Your task to perform on an android device: View the shopping cart on target. Search for "macbook air" on target, select the first entry, add it to the cart, then select checkout. Image 0: 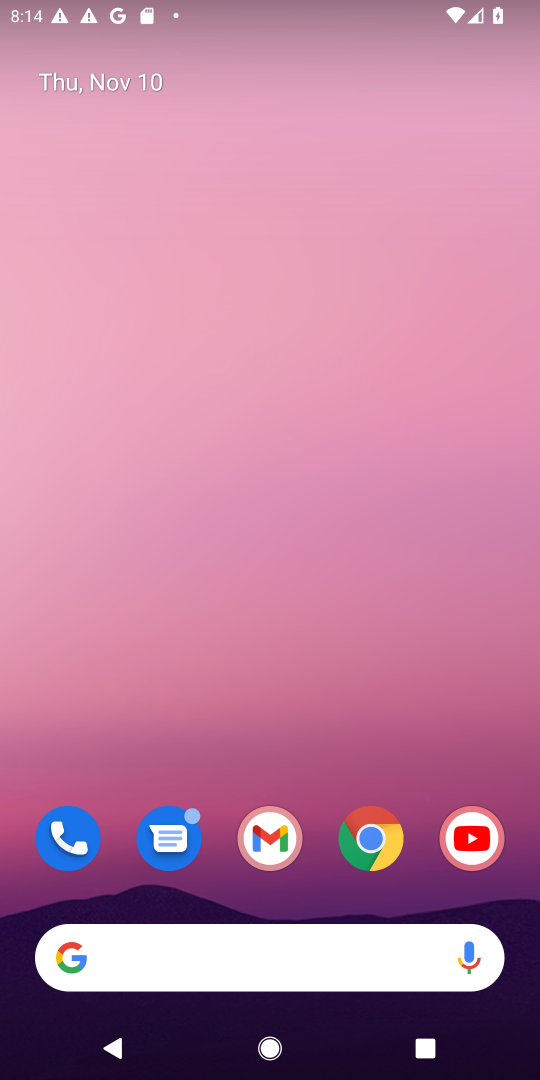
Step 0: drag from (336, 648) to (370, 111)
Your task to perform on an android device: View the shopping cart on target. Search for "macbook air" on target, select the first entry, add it to the cart, then select checkout. Image 1: 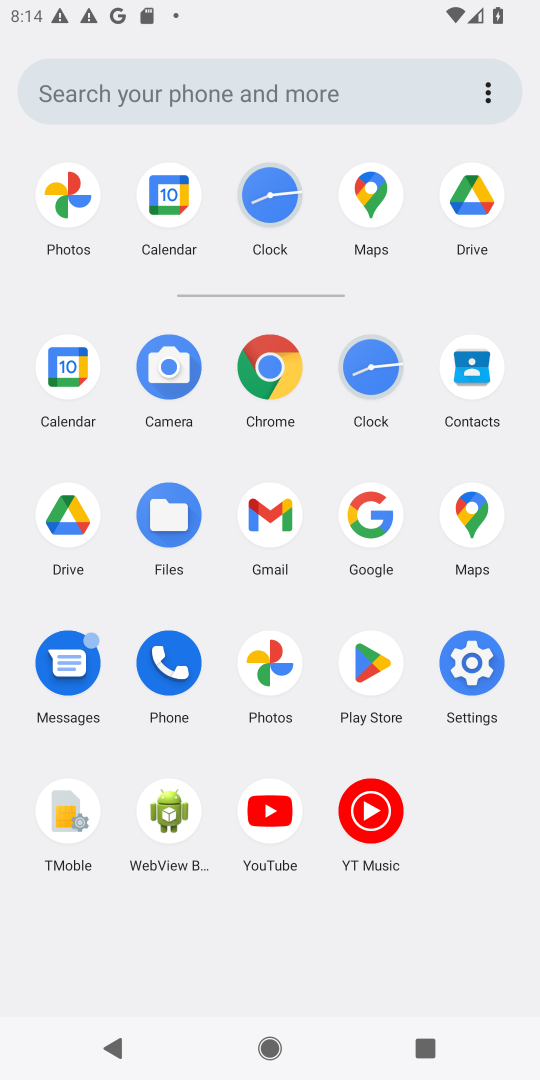
Step 1: click (274, 366)
Your task to perform on an android device: View the shopping cart on target. Search for "macbook air" on target, select the first entry, add it to the cart, then select checkout. Image 2: 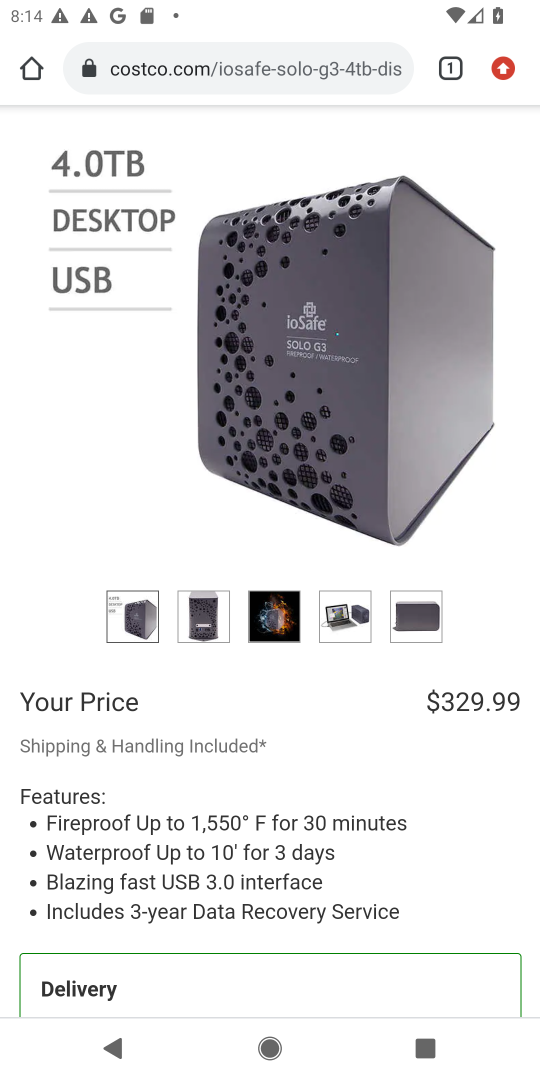
Step 2: click (307, 64)
Your task to perform on an android device: View the shopping cart on target. Search for "macbook air" on target, select the first entry, add it to the cart, then select checkout. Image 3: 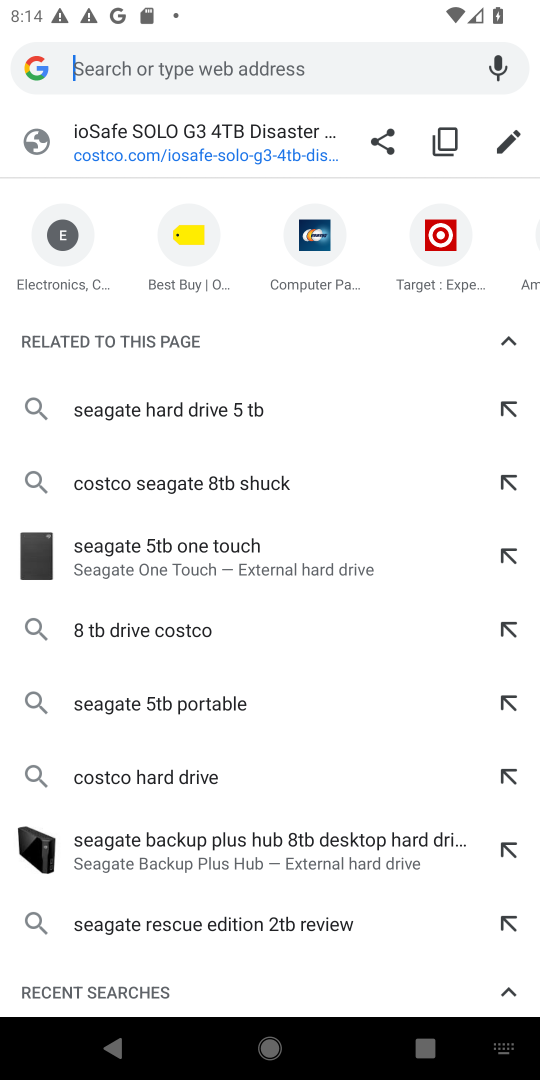
Step 3: type "target.com"
Your task to perform on an android device: View the shopping cart on target. Search for "macbook air" on target, select the first entry, add it to the cart, then select checkout. Image 4: 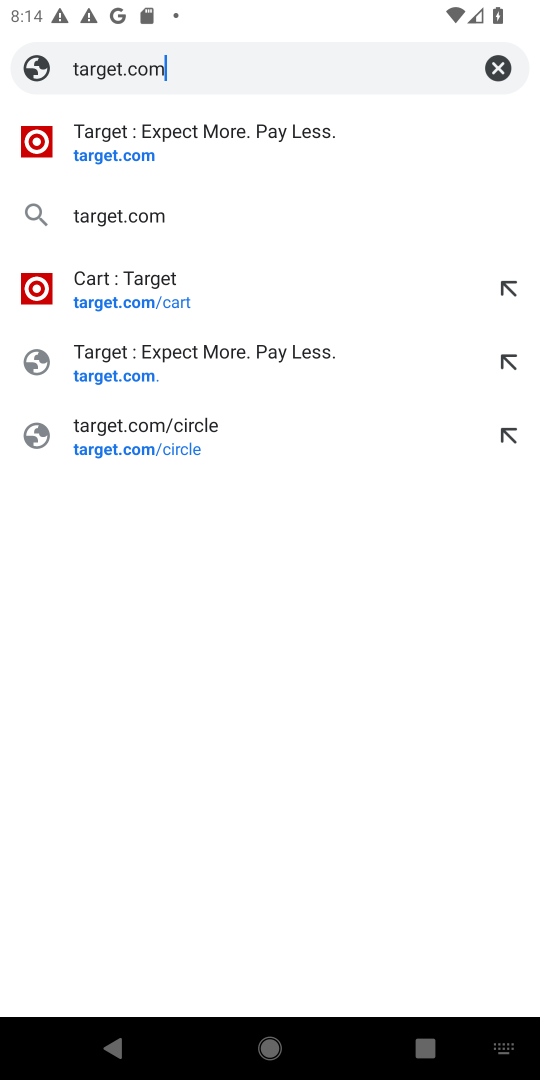
Step 4: press enter
Your task to perform on an android device: View the shopping cart on target. Search for "macbook air" on target, select the first entry, add it to the cart, then select checkout. Image 5: 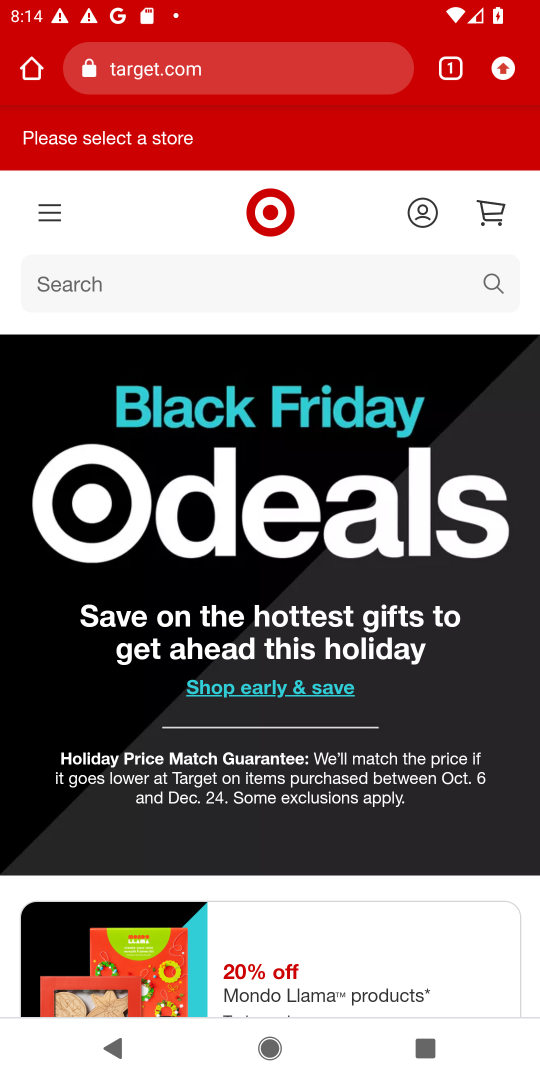
Step 5: drag from (335, 964) to (340, 1033)
Your task to perform on an android device: View the shopping cart on target. Search for "macbook air" on target, select the first entry, add it to the cart, then select checkout. Image 6: 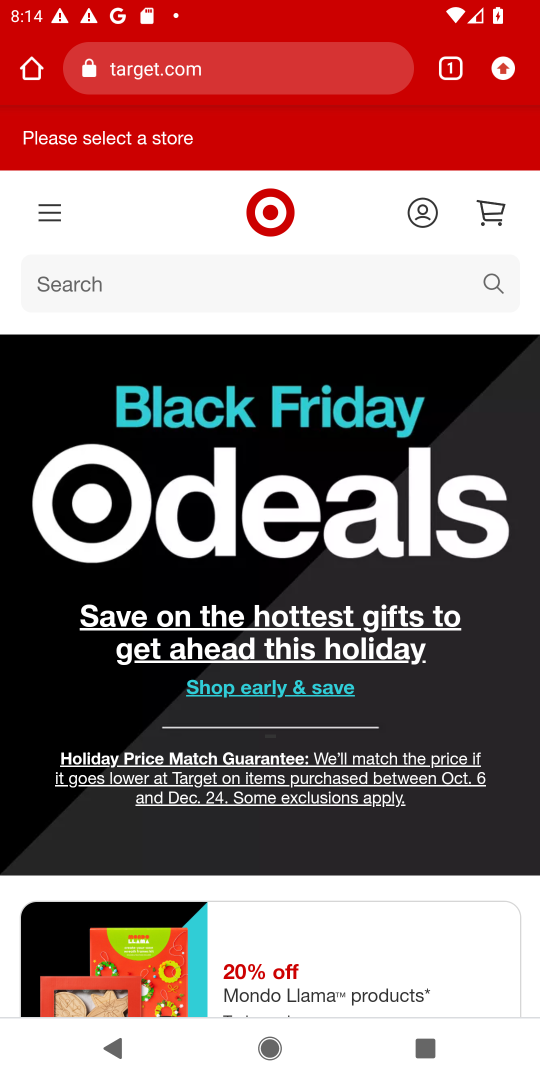
Step 6: click (211, 288)
Your task to perform on an android device: View the shopping cart on target. Search for "macbook air" on target, select the first entry, add it to the cart, then select checkout. Image 7: 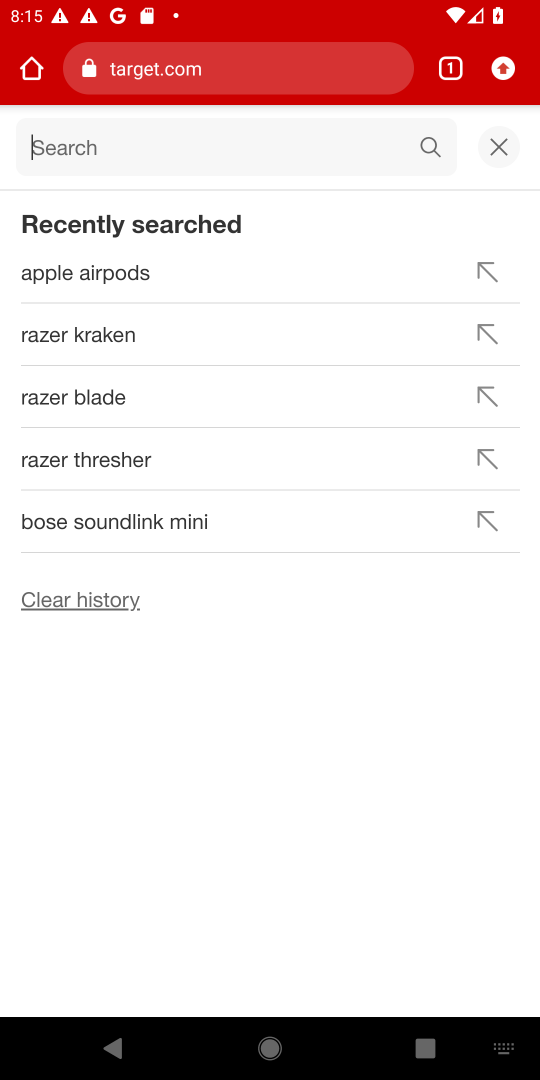
Step 7: click (508, 157)
Your task to perform on an android device: View the shopping cart on target. Search for "macbook air" on target, select the first entry, add it to the cart, then select checkout. Image 8: 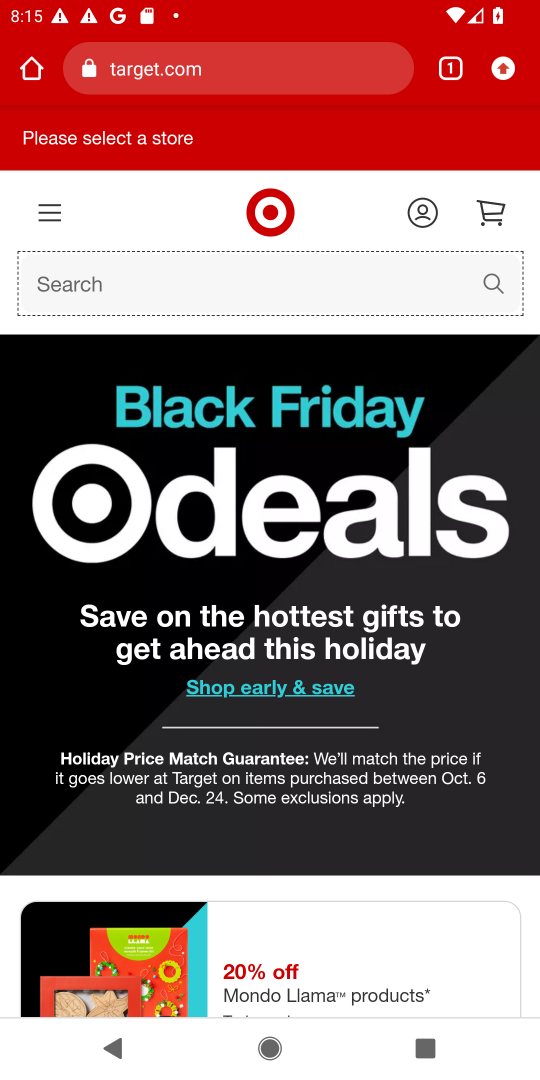
Step 8: click (515, 202)
Your task to perform on an android device: View the shopping cart on target. Search for "macbook air" on target, select the first entry, add it to the cart, then select checkout. Image 9: 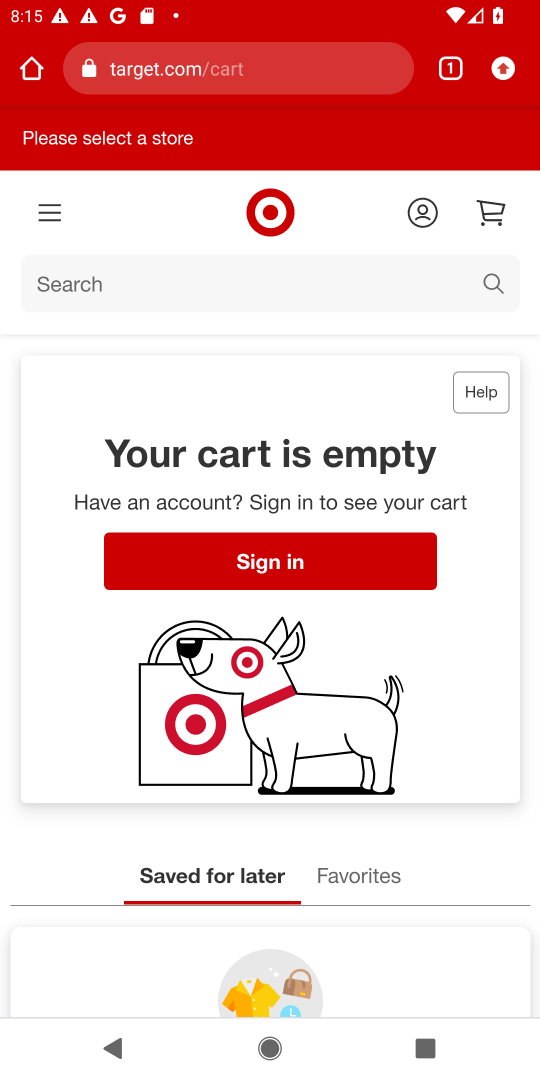
Step 9: click (295, 292)
Your task to perform on an android device: View the shopping cart on target. Search for "macbook air" on target, select the first entry, add it to the cart, then select checkout. Image 10: 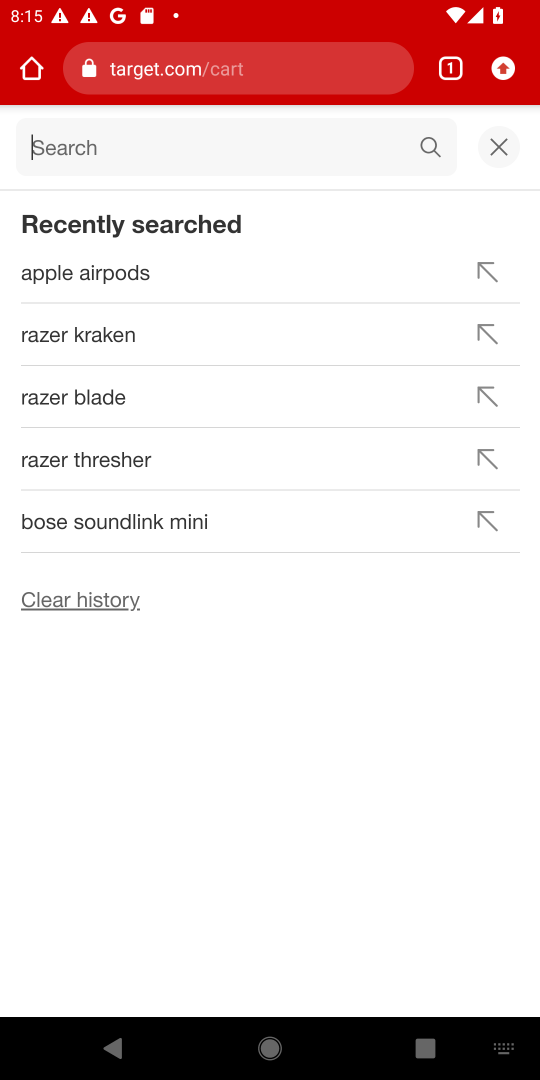
Step 10: click (495, 143)
Your task to perform on an android device: View the shopping cart on target. Search for "macbook air" on target, select the first entry, add it to the cart, then select checkout. Image 11: 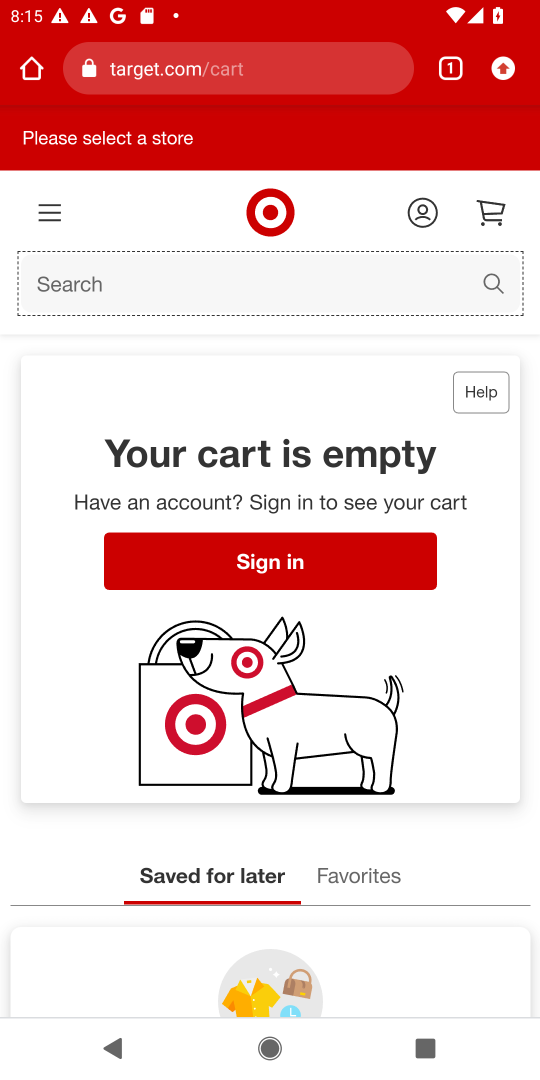
Step 11: click (502, 216)
Your task to perform on an android device: View the shopping cart on target. Search for "macbook air" on target, select the first entry, add it to the cart, then select checkout. Image 12: 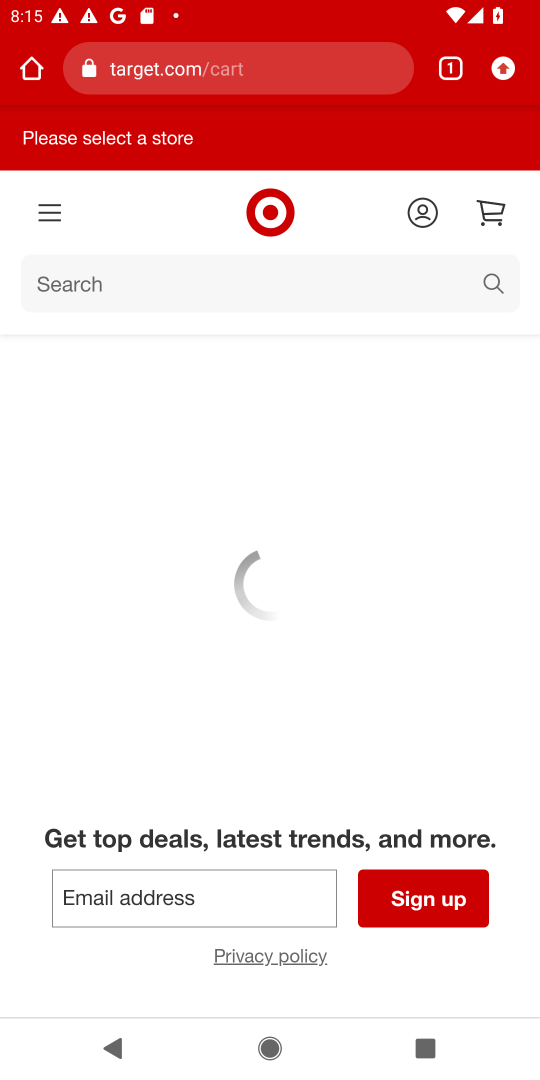
Step 12: click (247, 273)
Your task to perform on an android device: View the shopping cart on target. Search for "macbook air" on target, select the first entry, add it to the cart, then select checkout. Image 13: 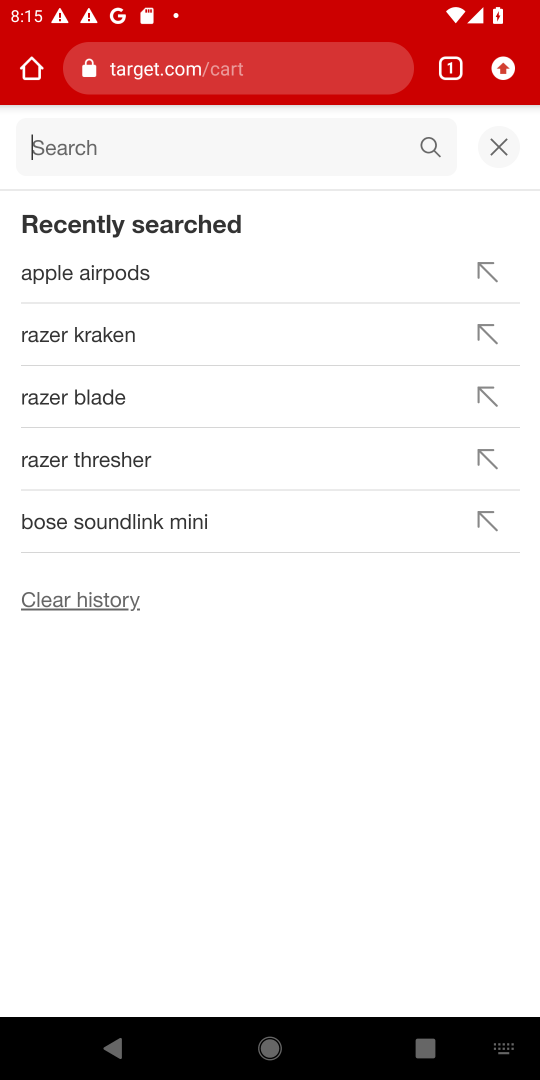
Step 13: type "macbook air"
Your task to perform on an android device: View the shopping cart on target. Search for "macbook air" on target, select the first entry, add it to the cart, then select checkout. Image 14: 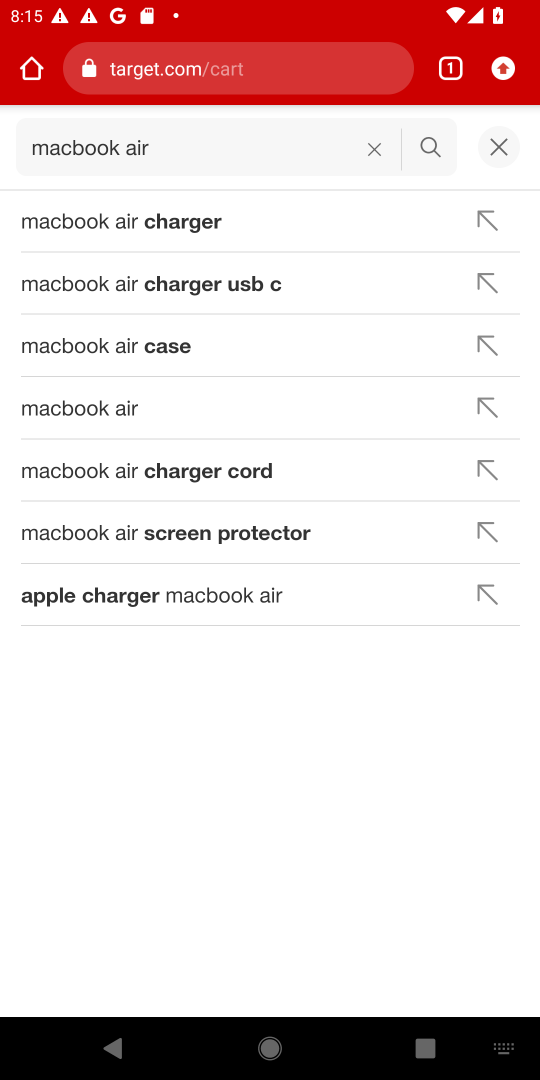
Step 14: press enter
Your task to perform on an android device: View the shopping cart on target. Search for "macbook air" on target, select the first entry, add it to the cart, then select checkout. Image 15: 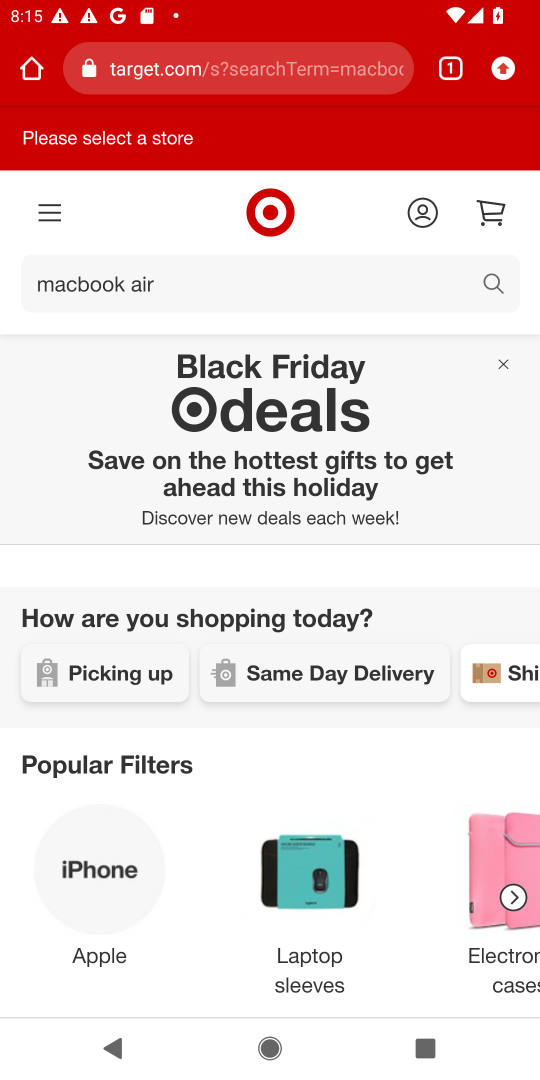
Step 15: task complete